Your task to perform on an android device: What's the news in Indonesia? Image 0: 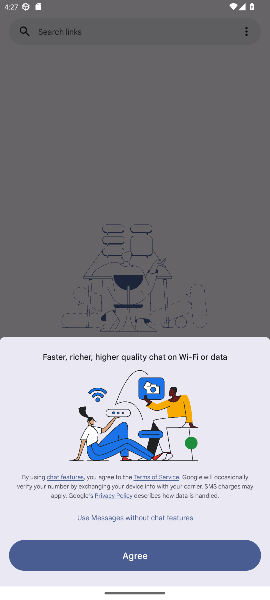
Step 0: click (173, 556)
Your task to perform on an android device: What's the news in Indonesia? Image 1: 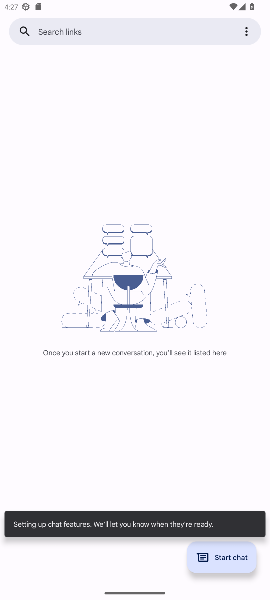
Step 1: press home button
Your task to perform on an android device: What's the news in Indonesia? Image 2: 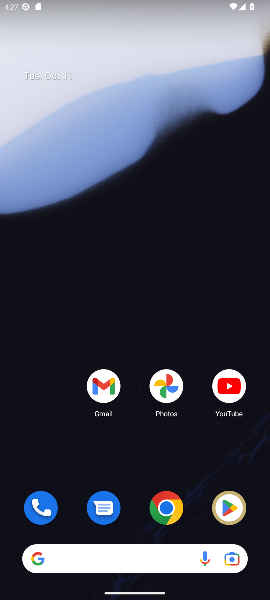
Step 2: click (34, 560)
Your task to perform on an android device: What's the news in Indonesia? Image 3: 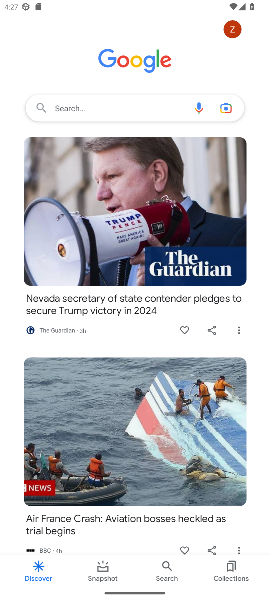
Step 3: click (96, 110)
Your task to perform on an android device: What's the news in Indonesia? Image 4: 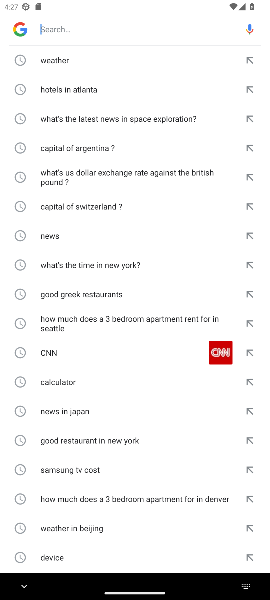
Step 4: type "whats the news in indonesia?"
Your task to perform on an android device: What's the news in Indonesia? Image 5: 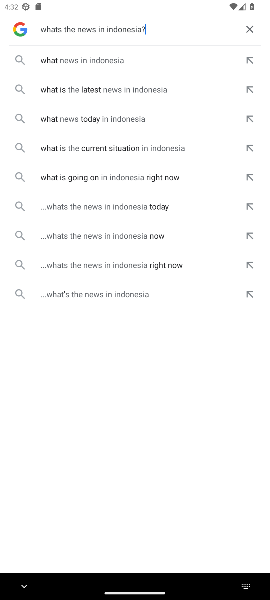
Step 5: task complete